Your task to perform on an android device: manage bookmarks in the chrome app Image 0: 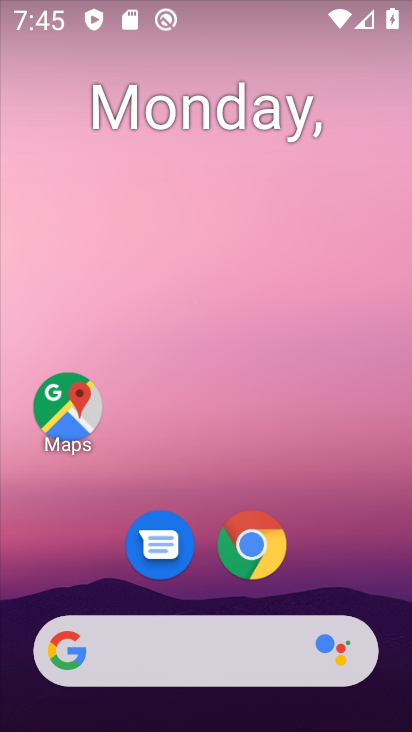
Step 0: click (261, 545)
Your task to perform on an android device: manage bookmarks in the chrome app Image 1: 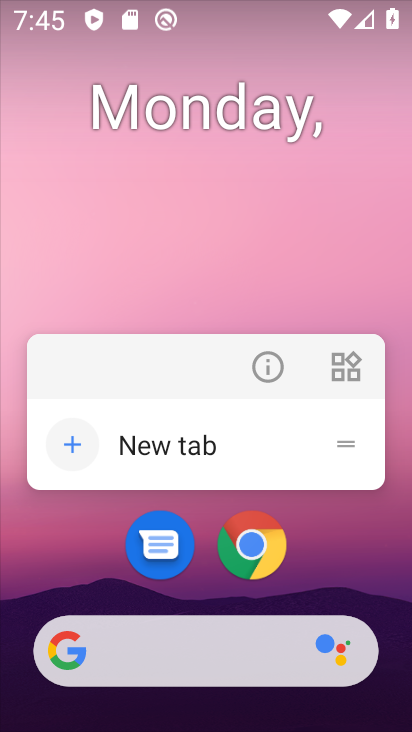
Step 1: click (266, 542)
Your task to perform on an android device: manage bookmarks in the chrome app Image 2: 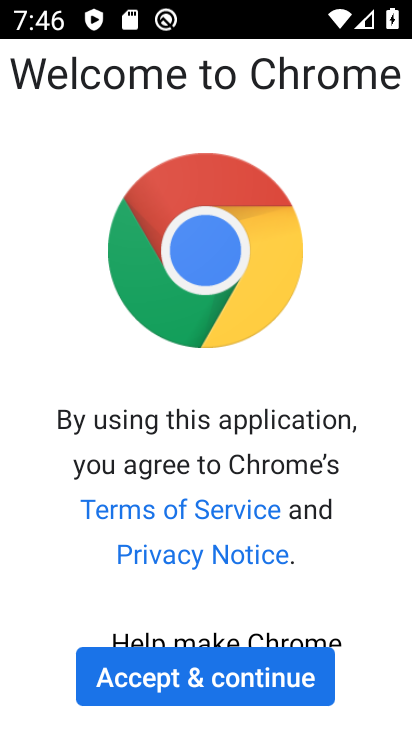
Step 2: click (270, 663)
Your task to perform on an android device: manage bookmarks in the chrome app Image 3: 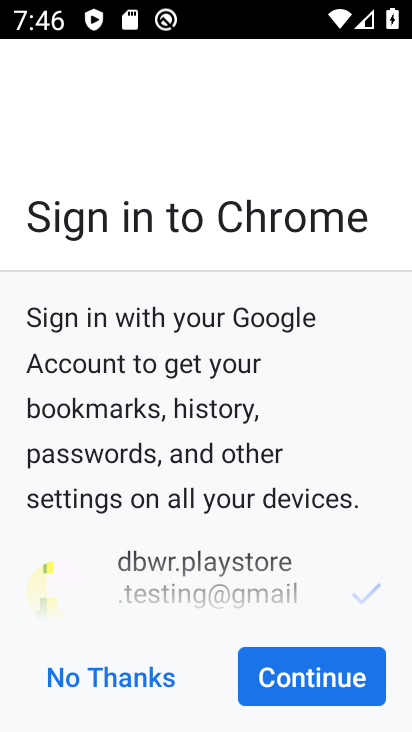
Step 3: click (321, 683)
Your task to perform on an android device: manage bookmarks in the chrome app Image 4: 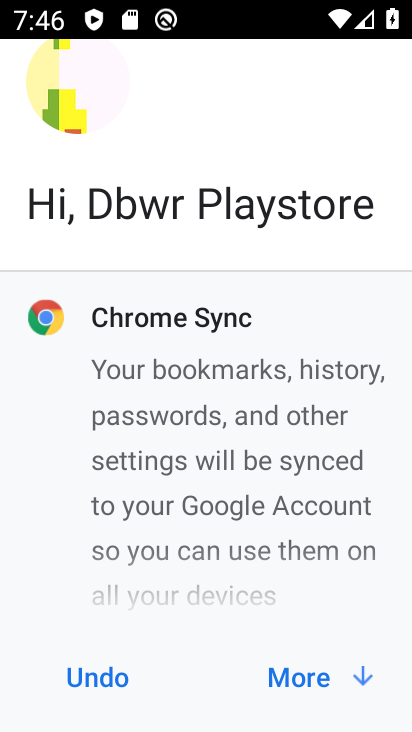
Step 4: click (341, 671)
Your task to perform on an android device: manage bookmarks in the chrome app Image 5: 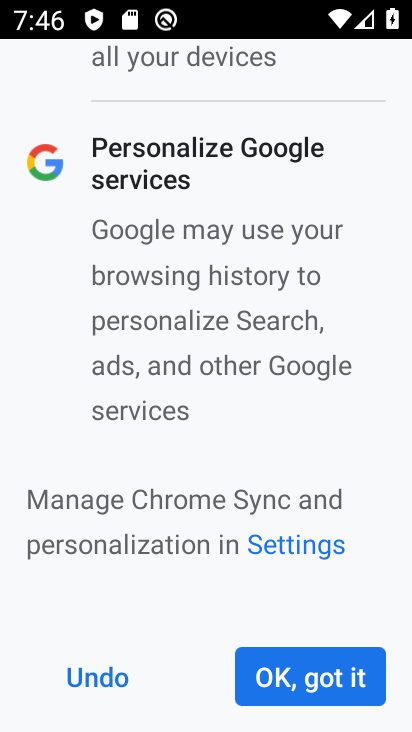
Step 5: click (341, 671)
Your task to perform on an android device: manage bookmarks in the chrome app Image 6: 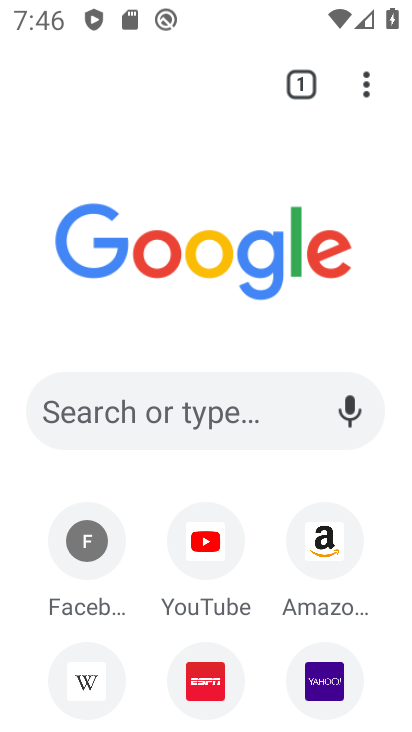
Step 6: click (371, 88)
Your task to perform on an android device: manage bookmarks in the chrome app Image 7: 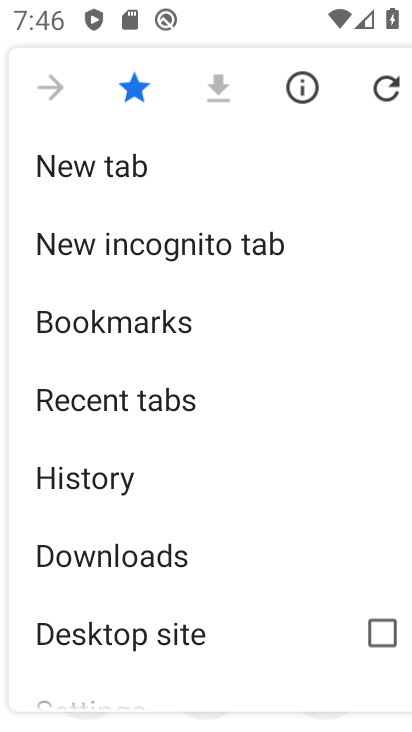
Step 7: click (131, 330)
Your task to perform on an android device: manage bookmarks in the chrome app Image 8: 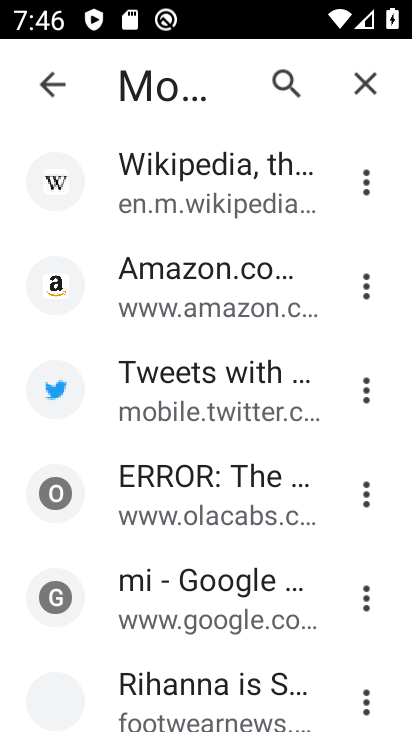
Step 8: click (357, 179)
Your task to perform on an android device: manage bookmarks in the chrome app Image 9: 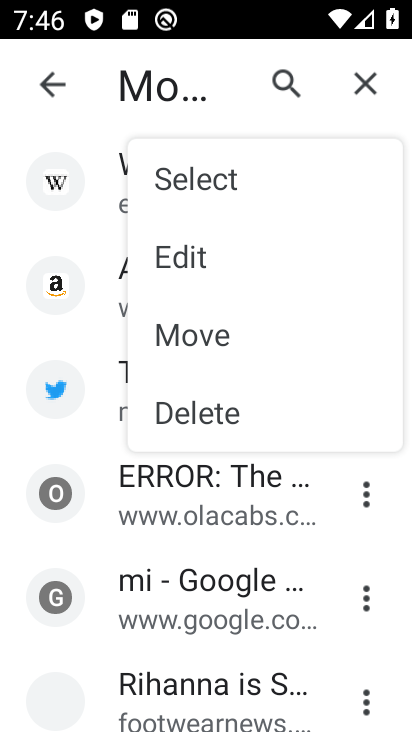
Step 9: click (221, 409)
Your task to perform on an android device: manage bookmarks in the chrome app Image 10: 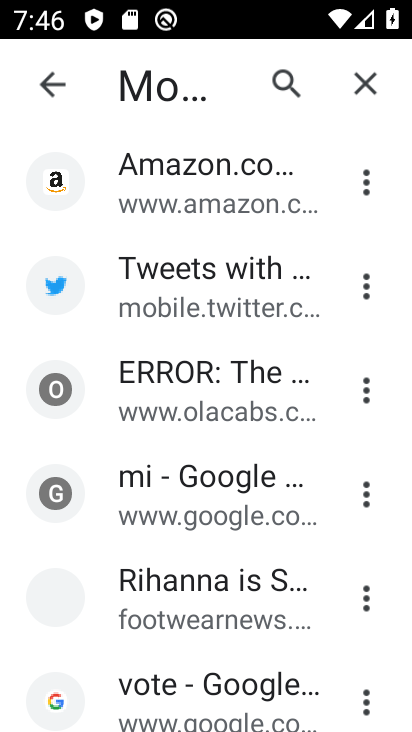
Step 10: task complete